Your task to perform on an android device: Go to eBay Image 0: 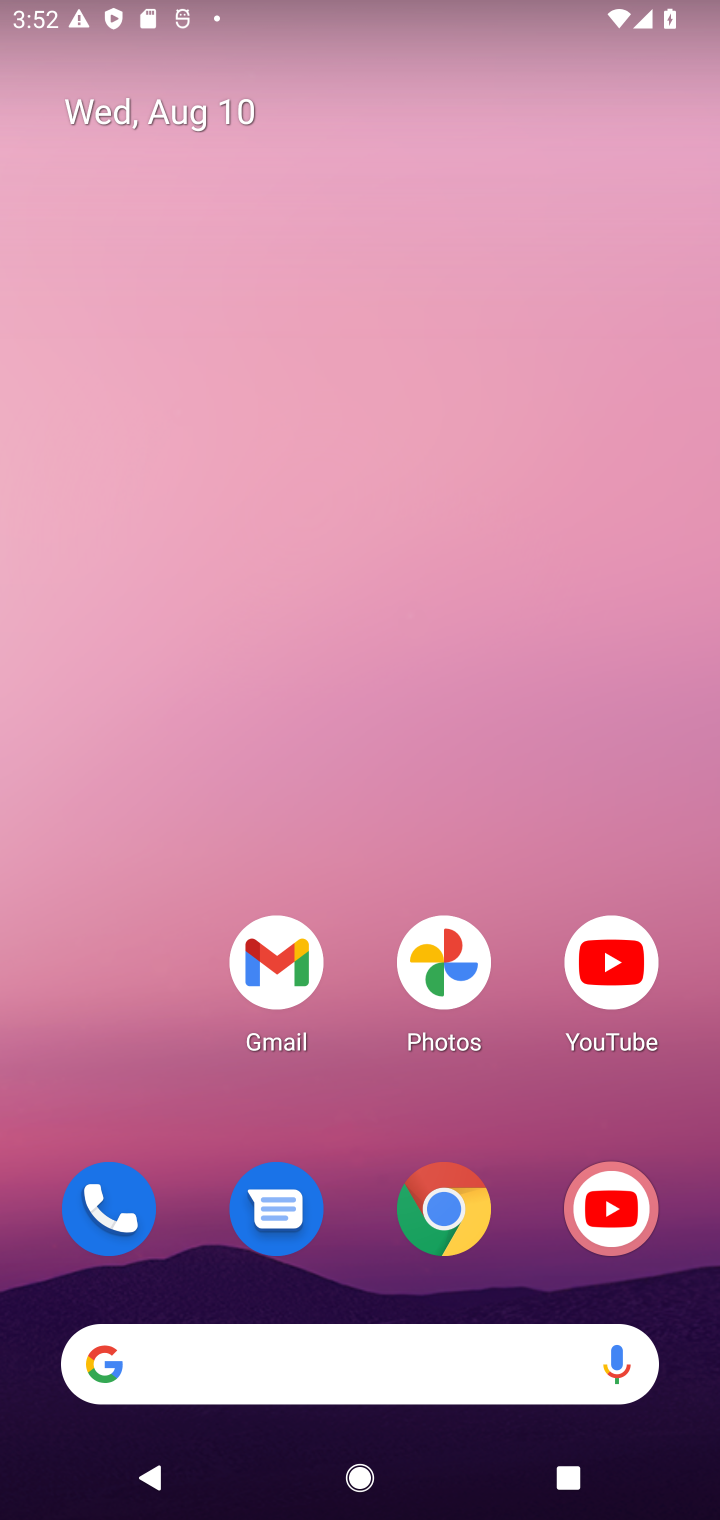
Step 0: click (461, 1246)
Your task to perform on an android device: Go to eBay Image 1: 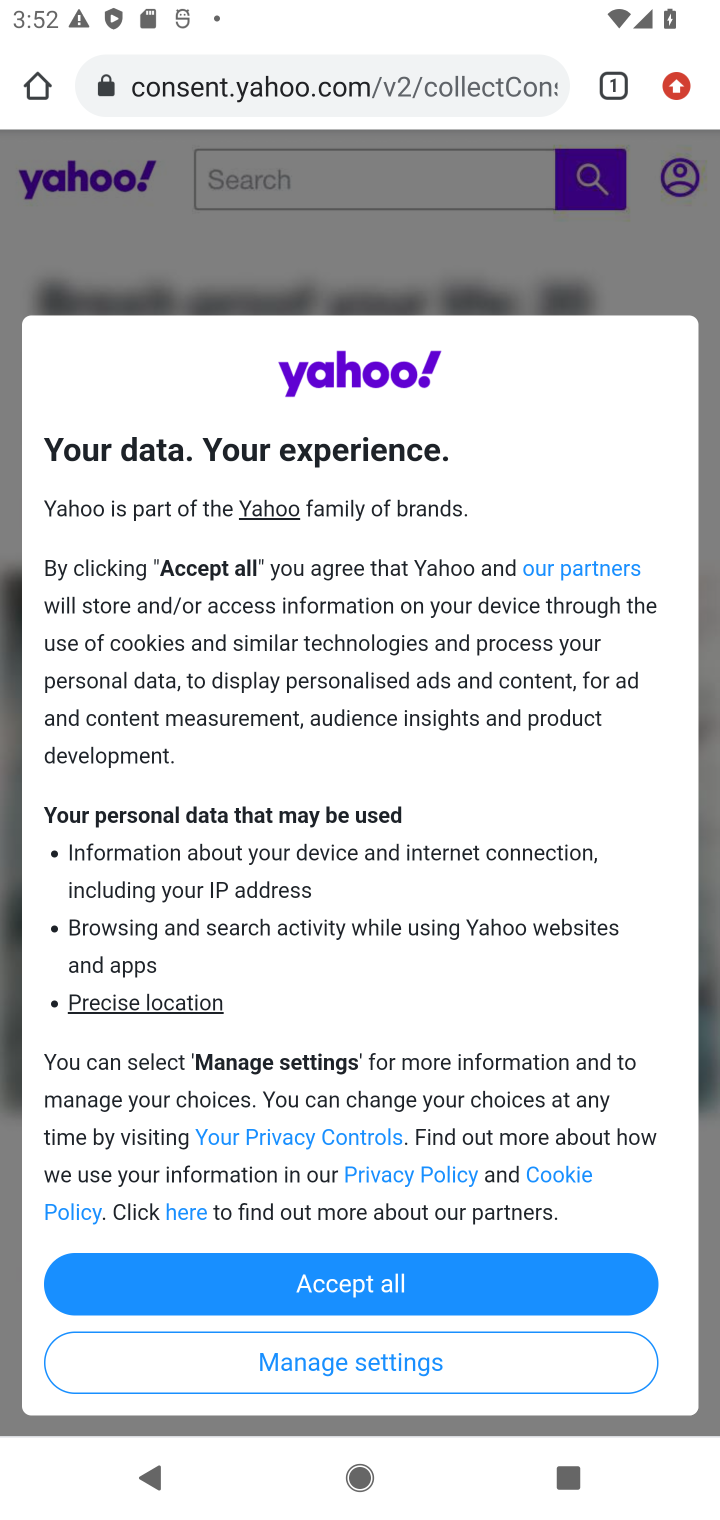
Step 1: click (36, 90)
Your task to perform on an android device: Go to eBay Image 2: 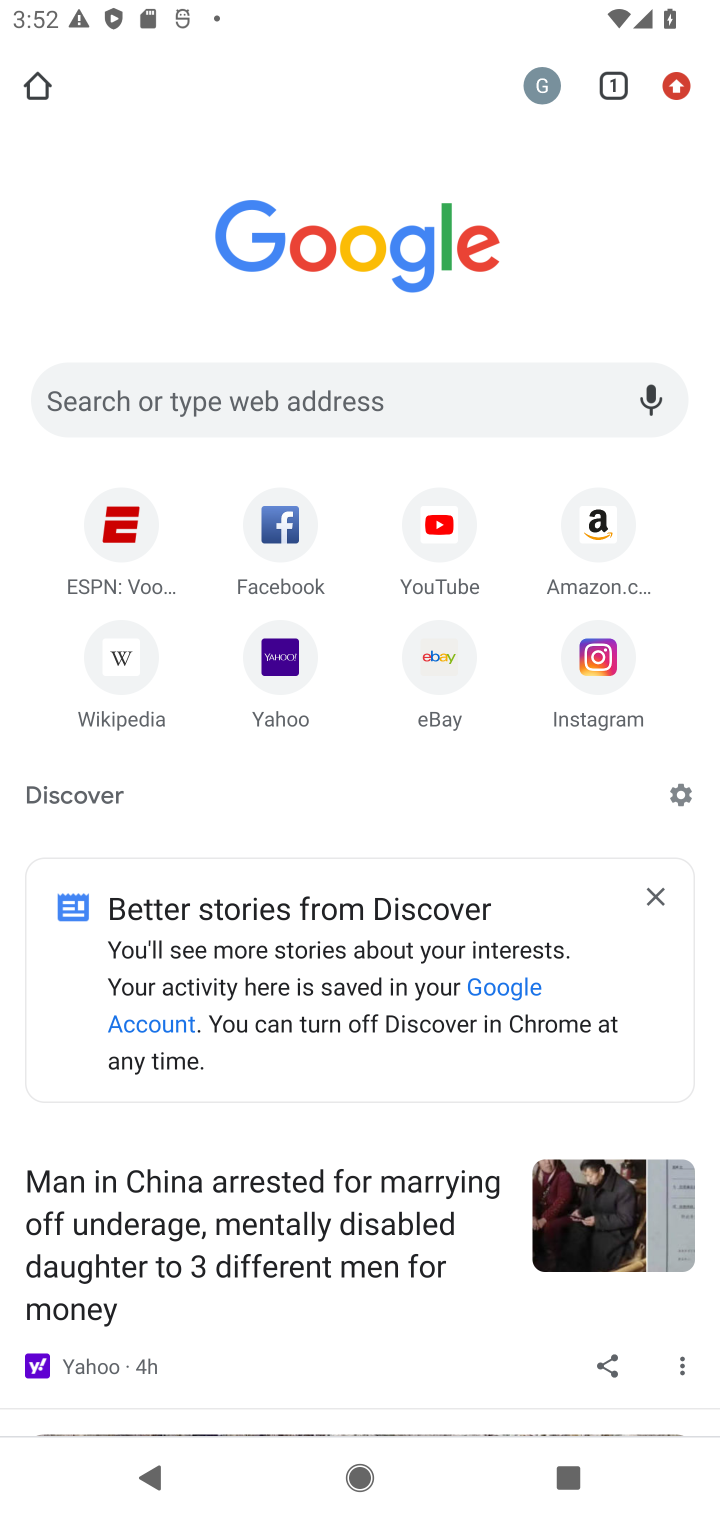
Step 2: click (429, 663)
Your task to perform on an android device: Go to eBay Image 3: 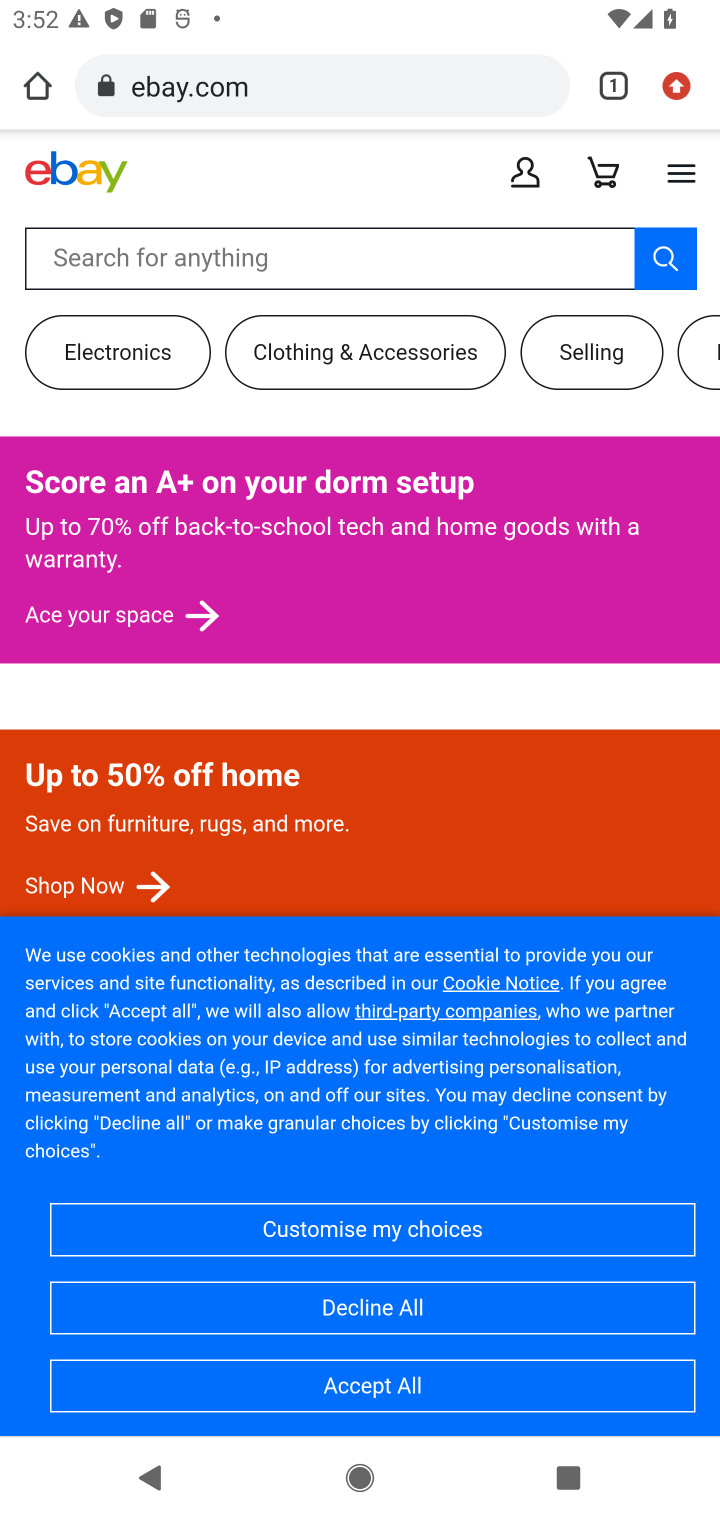
Step 3: task complete